Your task to perform on an android device: Open network settings Image 0: 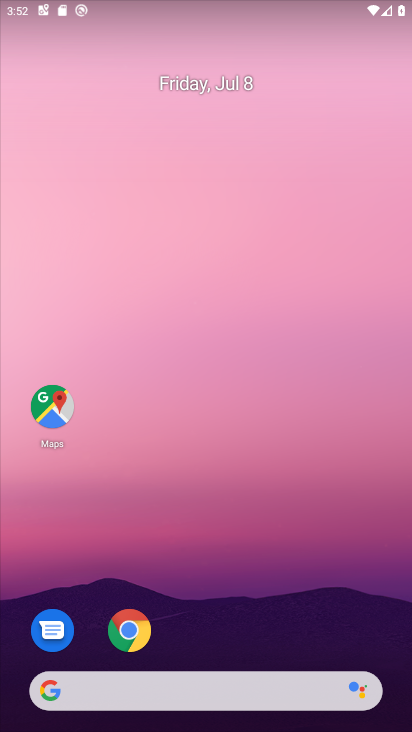
Step 0: drag from (290, 558) to (266, 34)
Your task to perform on an android device: Open network settings Image 1: 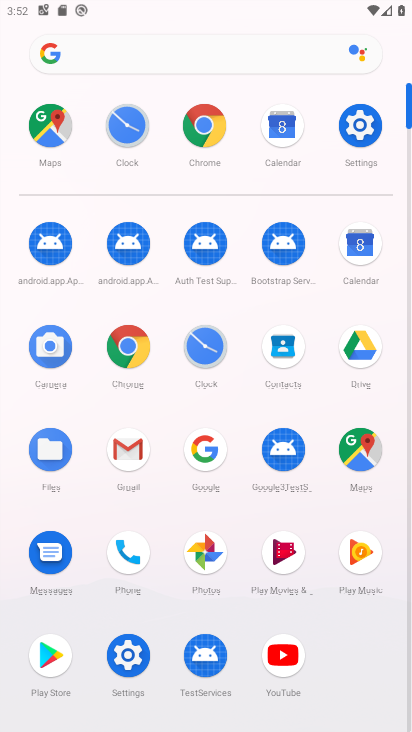
Step 1: click (351, 120)
Your task to perform on an android device: Open network settings Image 2: 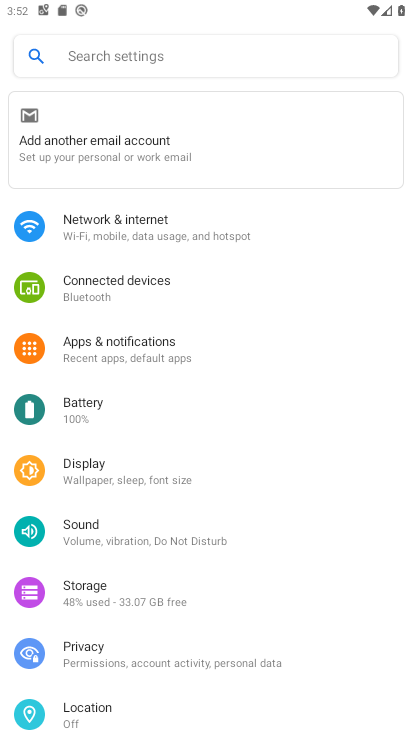
Step 2: click (143, 223)
Your task to perform on an android device: Open network settings Image 3: 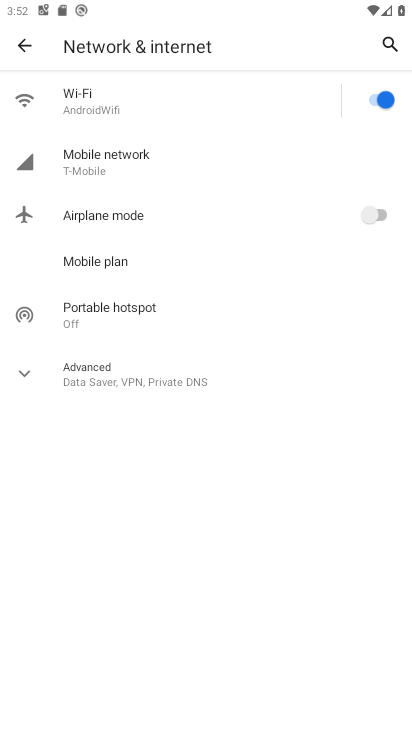
Step 3: click (178, 386)
Your task to perform on an android device: Open network settings Image 4: 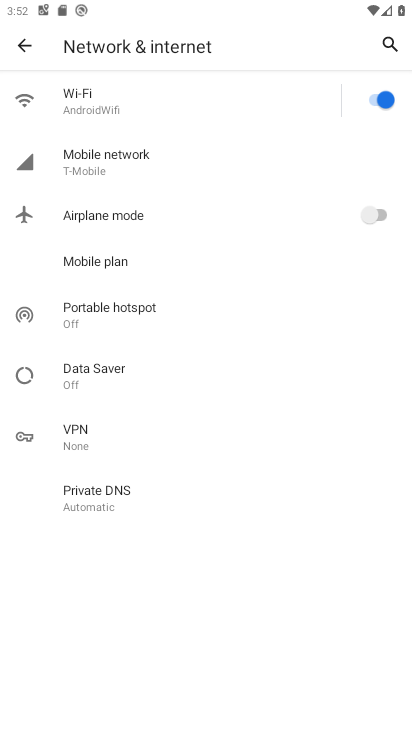
Step 4: task complete